Your task to perform on an android device: toggle airplane mode Image 0: 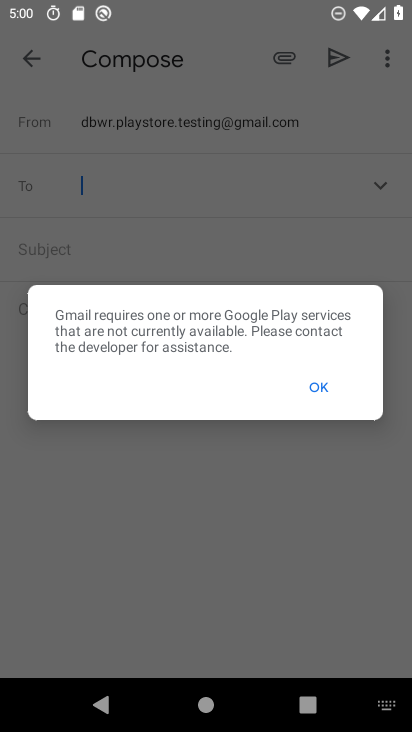
Step 0: press home button
Your task to perform on an android device: toggle airplane mode Image 1: 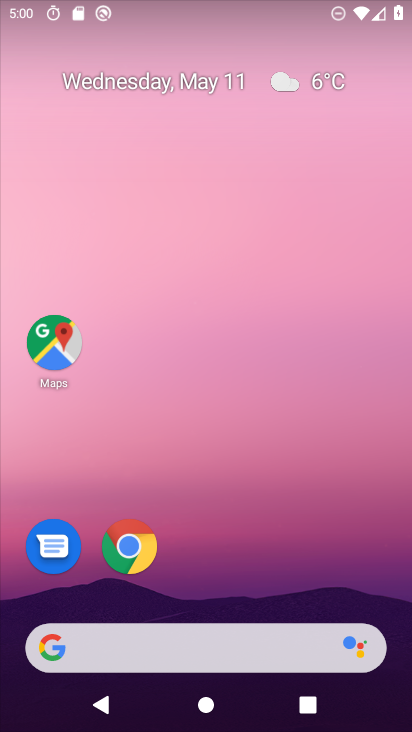
Step 1: drag from (143, 622) to (117, 258)
Your task to perform on an android device: toggle airplane mode Image 2: 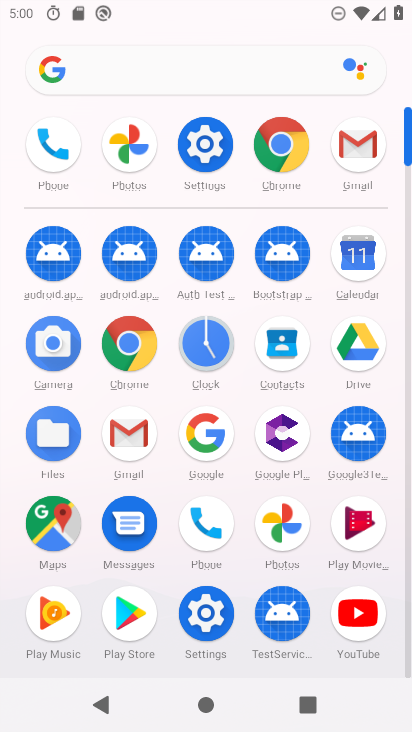
Step 2: click (199, 154)
Your task to perform on an android device: toggle airplane mode Image 3: 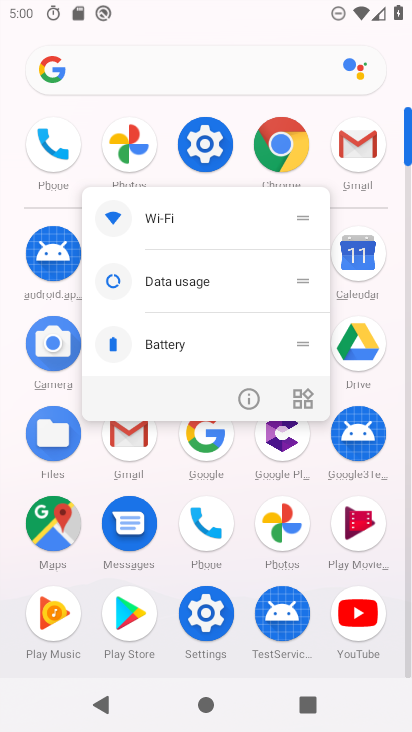
Step 3: click (195, 160)
Your task to perform on an android device: toggle airplane mode Image 4: 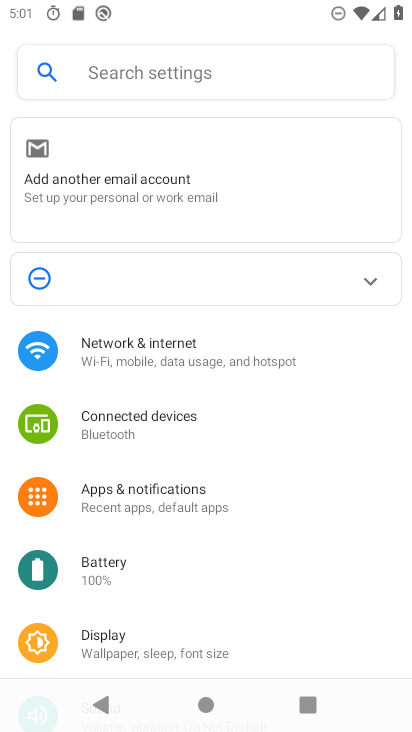
Step 4: click (164, 353)
Your task to perform on an android device: toggle airplane mode Image 5: 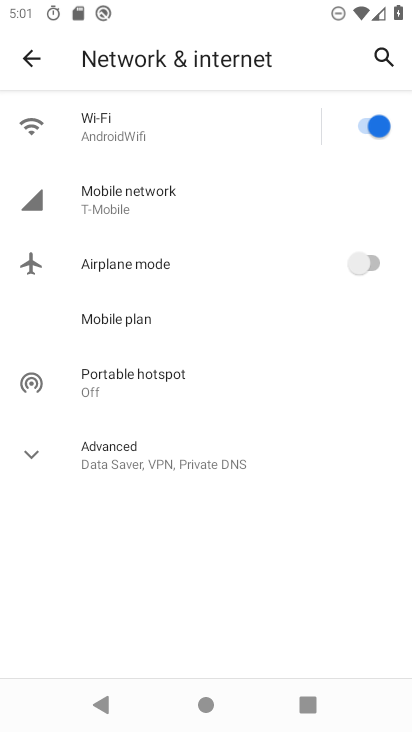
Step 5: click (379, 258)
Your task to perform on an android device: toggle airplane mode Image 6: 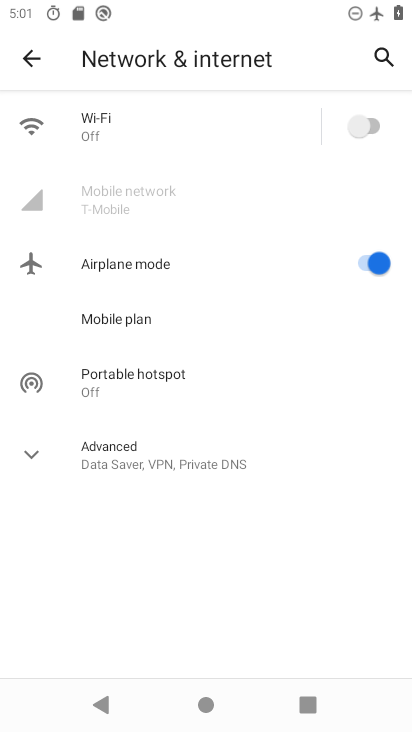
Step 6: task complete